Your task to perform on an android device: Open notification settings Image 0: 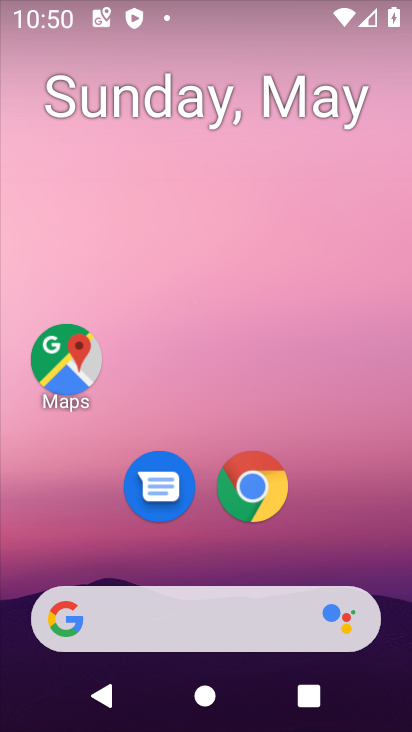
Step 0: drag from (265, 555) to (215, 125)
Your task to perform on an android device: Open notification settings Image 1: 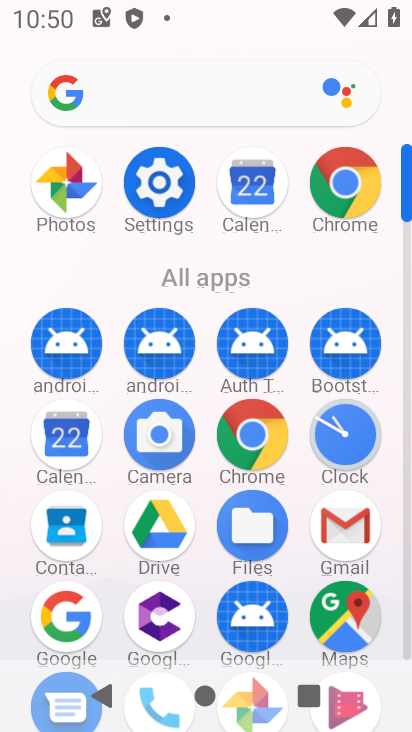
Step 1: click (168, 191)
Your task to perform on an android device: Open notification settings Image 2: 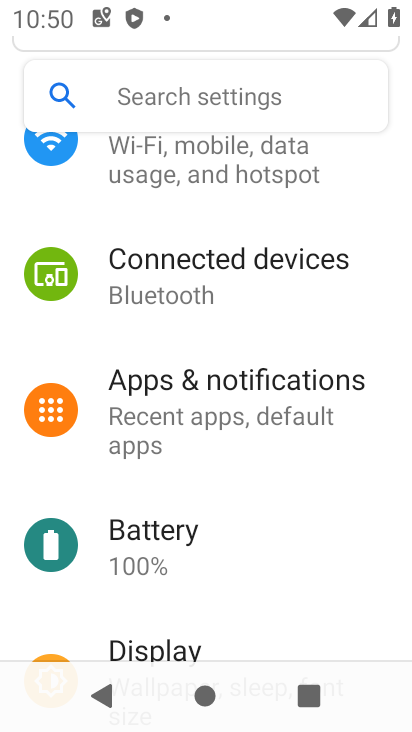
Step 2: drag from (190, 577) to (151, 407)
Your task to perform on an android device: Open notification settings Image 3: 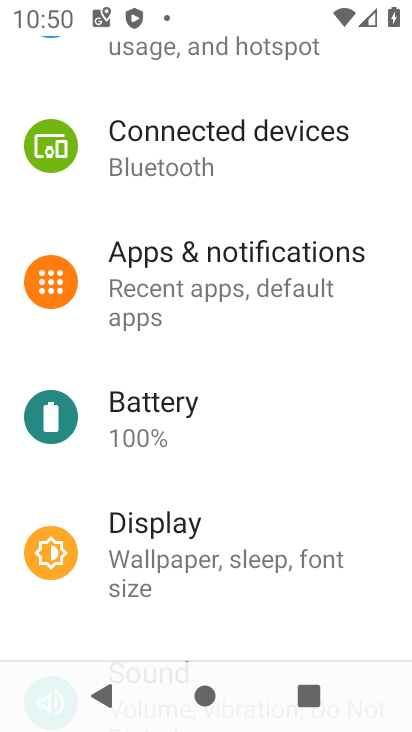
Step 3: click (161, 274)
Your task to perform on an android device: Open notification settings Image 4: 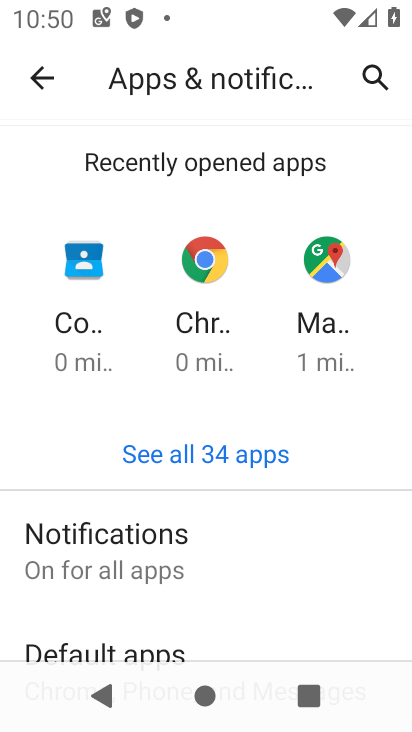
Step 4: click (102, 559)
Your task to perform on an android device: Open notification settings Image 5: 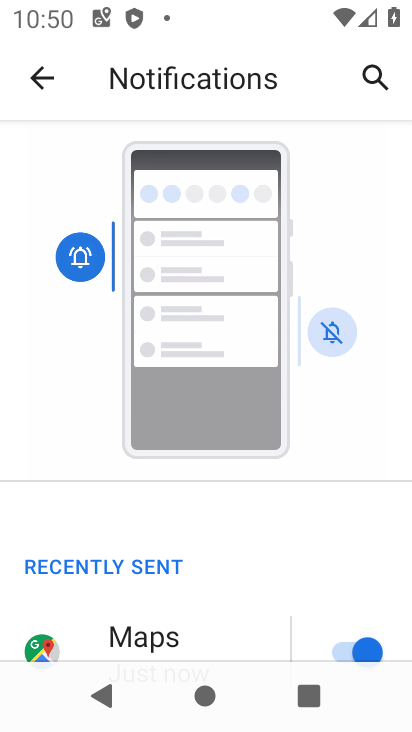
Step 5: task complete